Your task to perform on an android device: open app "Microsoft Authenticator" Image 0: 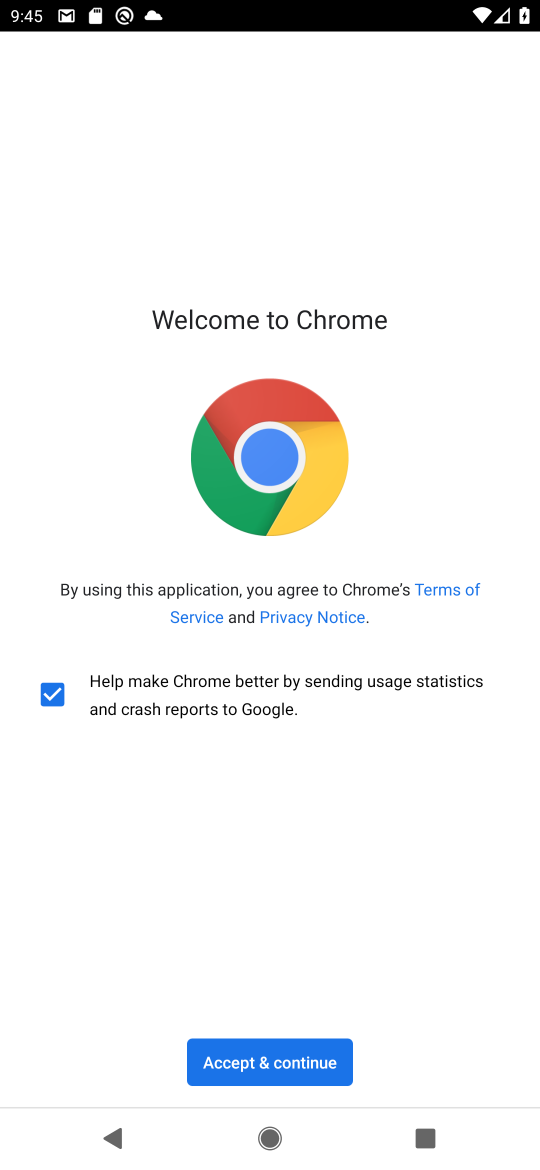
Step 0: press home button
Your task to perform on an android device: open app "Microsoft Authenticator" Image 1: 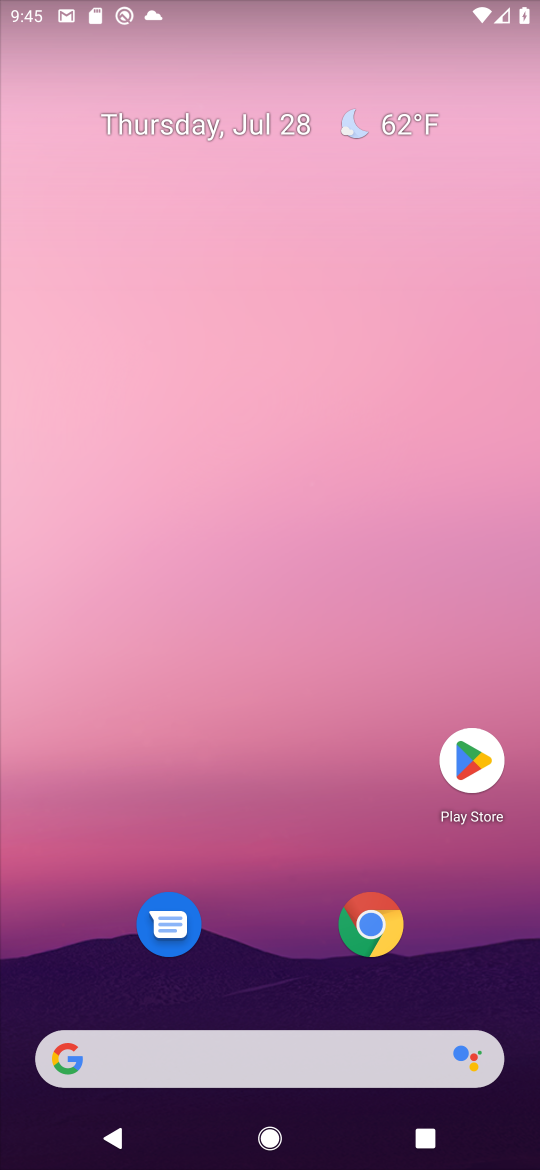
Step 1: click (478, 764)
Your task to perform on an android device: open app "Microsoft Authenticator" Image 2: 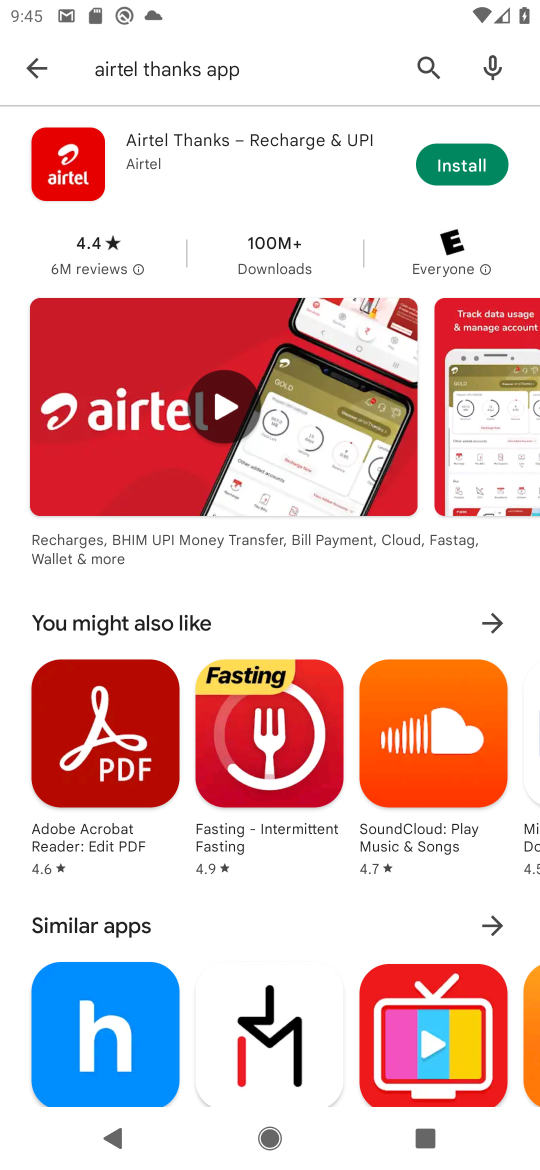
Step 2: click (427, 68)
Your task to perform on an android device: open app "Microsoft Authenticator" Image 3: 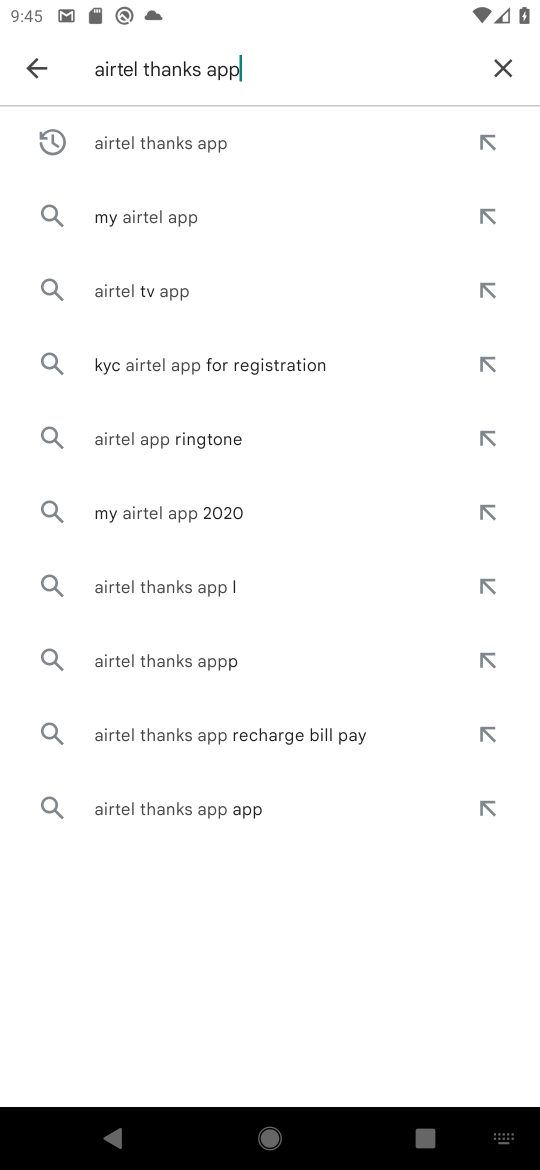
Step 3: click (497, 62)
Your task to perform on an android device: open app "Microsoft Authenticator" Image 4: 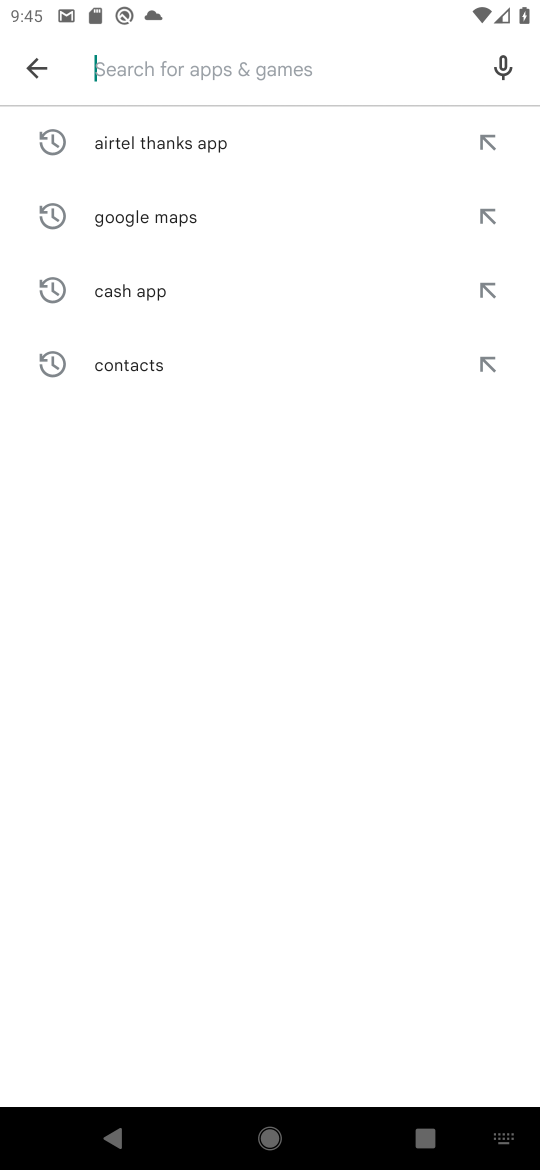
Step 4: type "Microsoft Authenticator"
Your task to perform on an android device: open app "Microsoft Authenticator" Image 5: 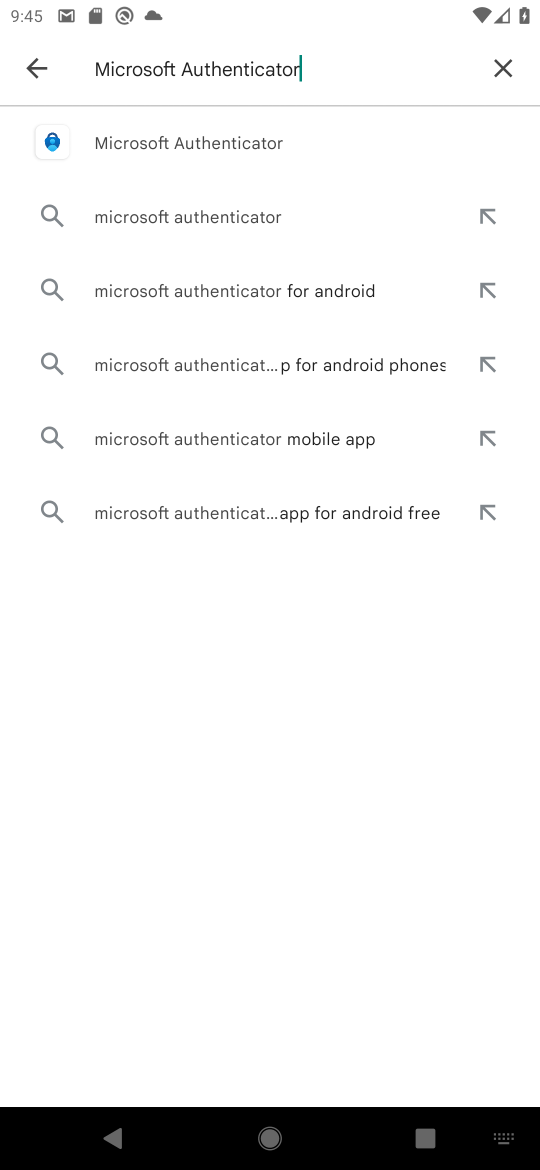
Step 5: click (170, 139)
Your task to perform on an android device: open app "Microsoft Authenticator" Image 6: 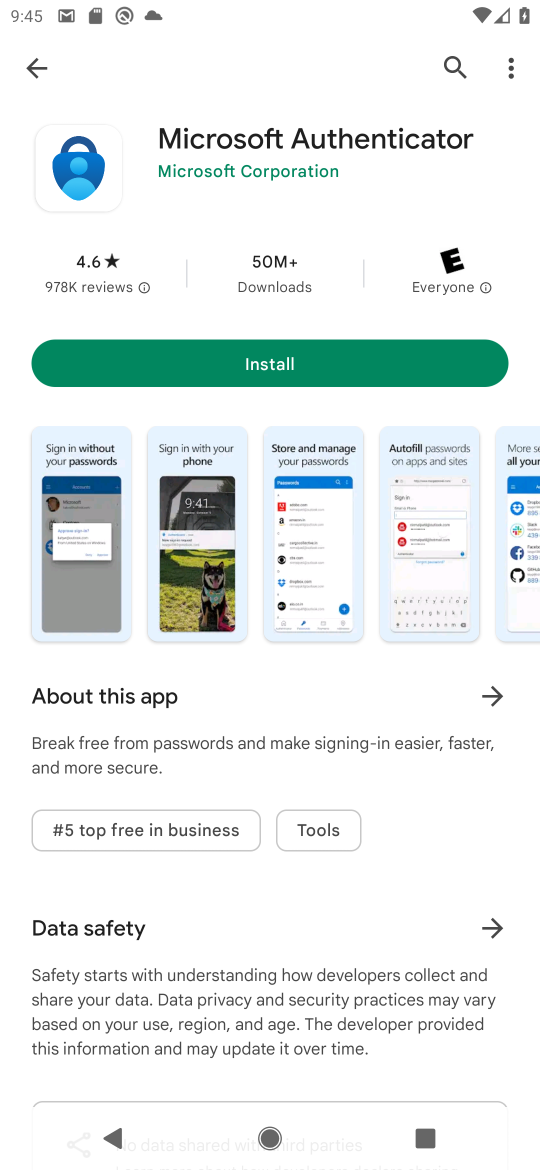
Step 6: task complete